Your task to perform on an android device: change the clock display to show seconds Image 0: 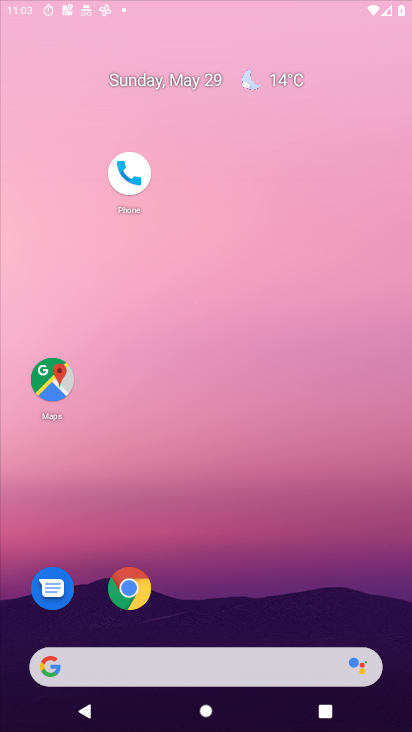
Step 0: drag from (363, 442) to (1, 421)
Your task to perform on an android device: change the clock display to show seconds Image 1: 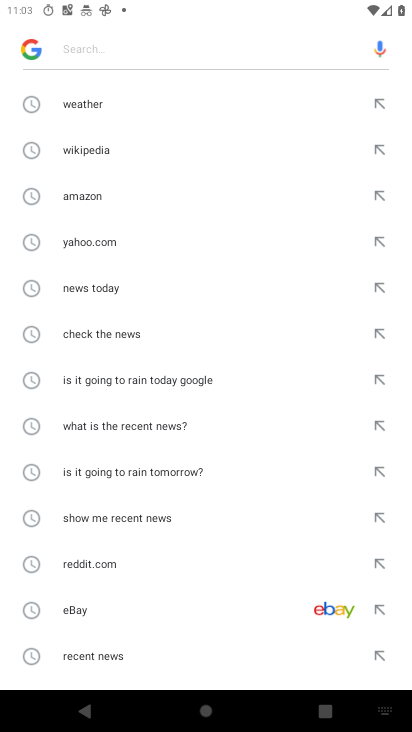
Step 1: press home button
Your task to perform on an android device: change the clock display to show seconds Image 2: 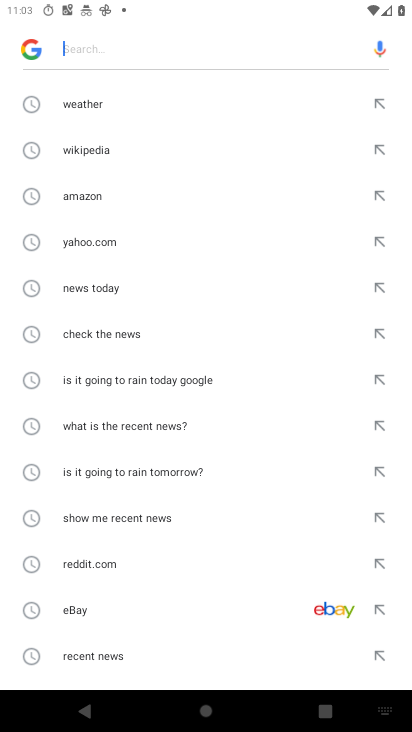
Step 2: press home button
Your task to perform on an android device: change the clock display to show seconds Image 3: 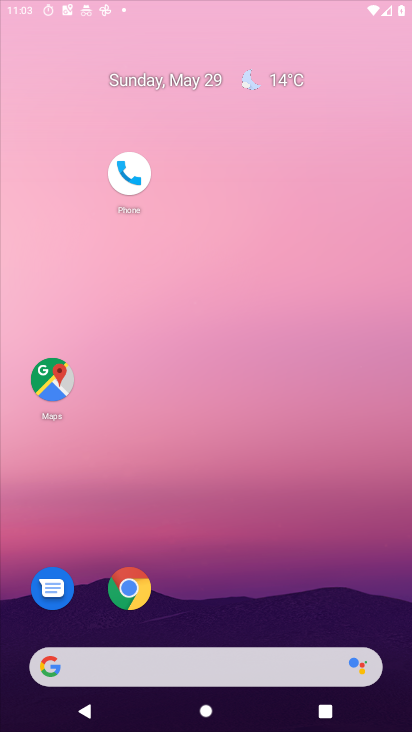
Step 3: press home button
Your task to perform on an android device: change the clock display to show seconds Image 4: 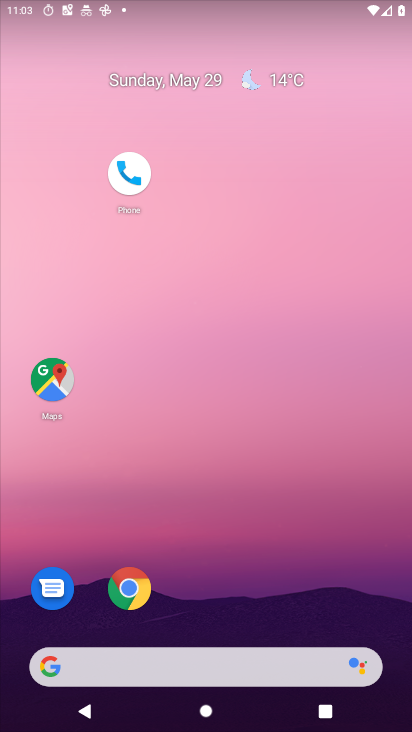
Step 4: drag from (269, 676) to (157, 31)
Your task to perform on an android device: change the clock display to show seconds Image 5: 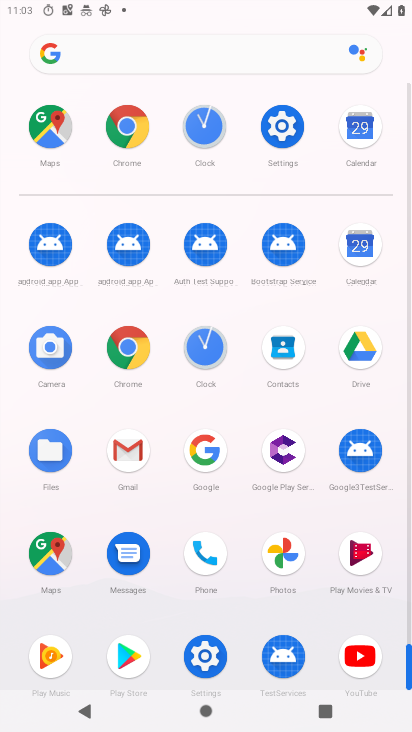
Step 5: click (211, 360)
Your task to perform on an android device: change the clock display to show seconds Image 6: 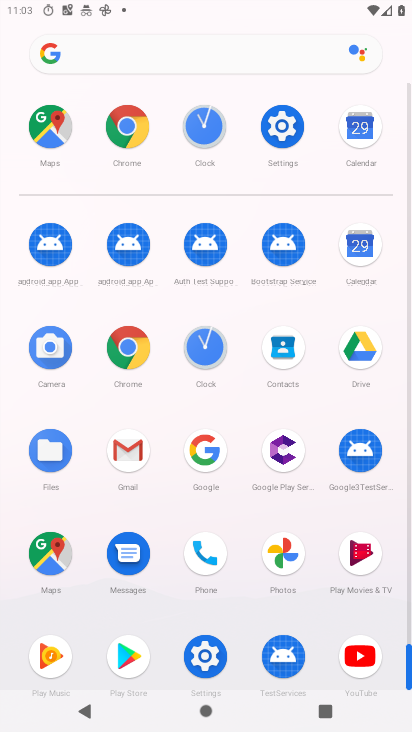
Step 6: click (211, 360)
Your task to perform on an android device: change the clock display to show seconds Image 7: 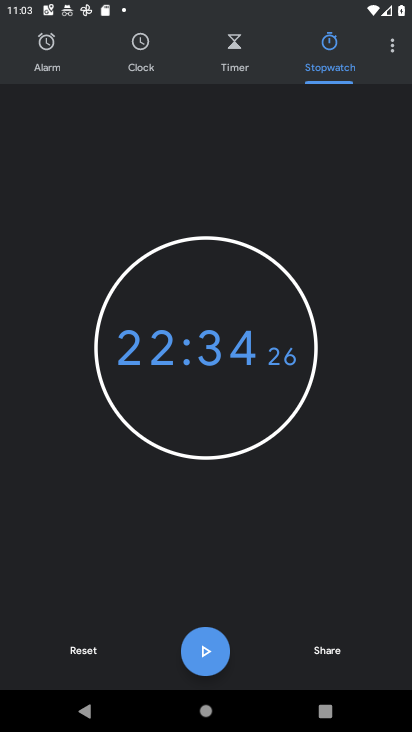
Step 7: click (396, 45)
Your task to perform on an android device: change the clock display to show seconds Image 8: 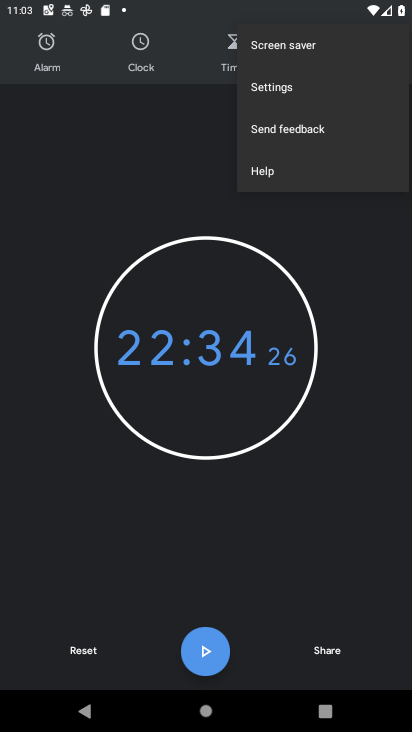
Step 8: click (271, 86)
Your task to perform on an android device: change the clock display to show seconds Image 9: 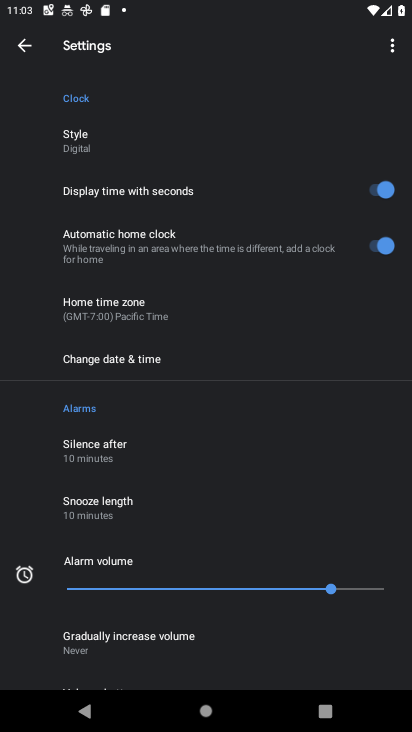
Step 9: task complete